Your task to perform on an android device: Open Chrome and go to the settings page Image 0: 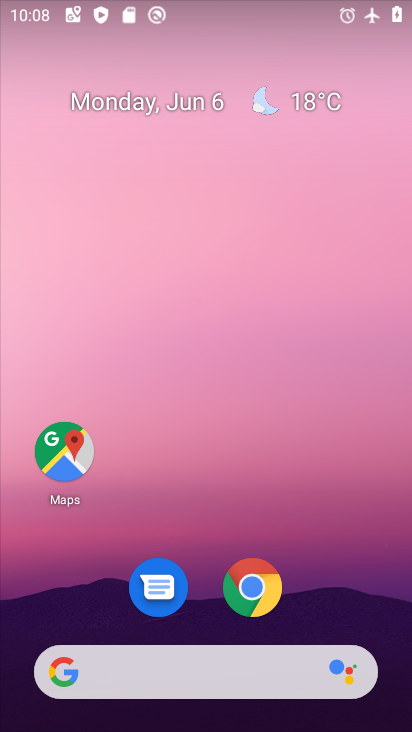
Step 0: click (250, 574)
Your task to perform on an android device: Open Chrome and go to the settings page Image 1: 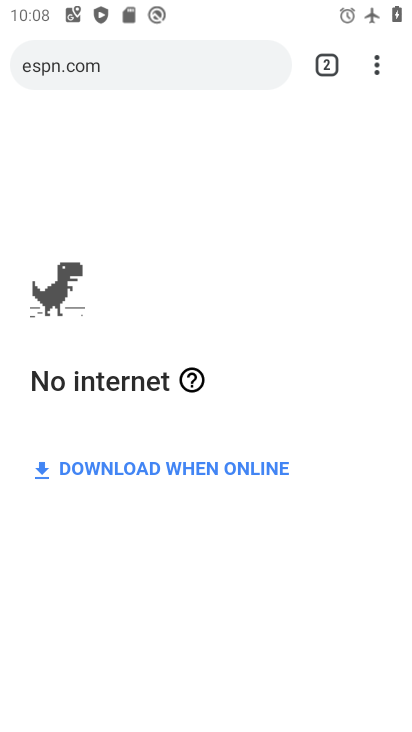
Step 1: click (380, 57)
Your task to perform on an android device: Open Chrome and go to the settings page Image 2: 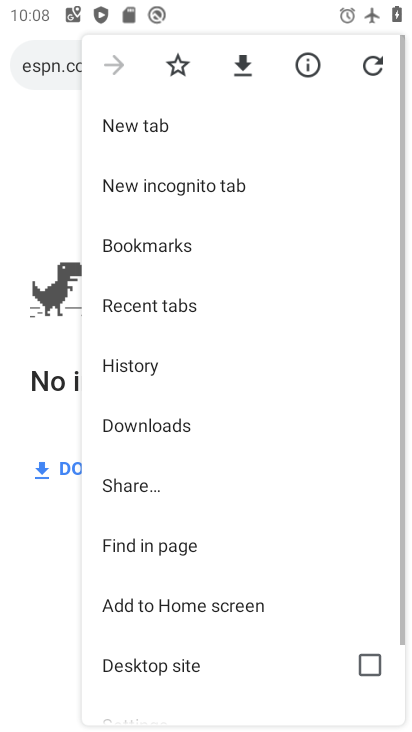
Step 2: drag from (250, 568) to (277, 63)
Your task to perform on an android device: Open Chrome and go to the settings page Image 3: 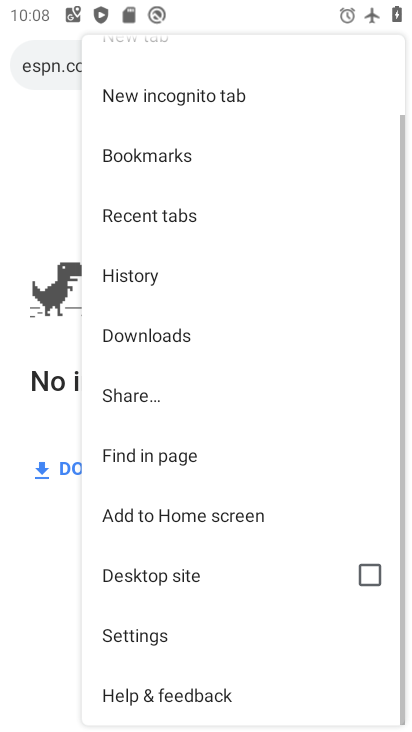
Step 3: click (146, 630)
Your task to perform on an android device: Open Chrome and go to the settings page Image 4: 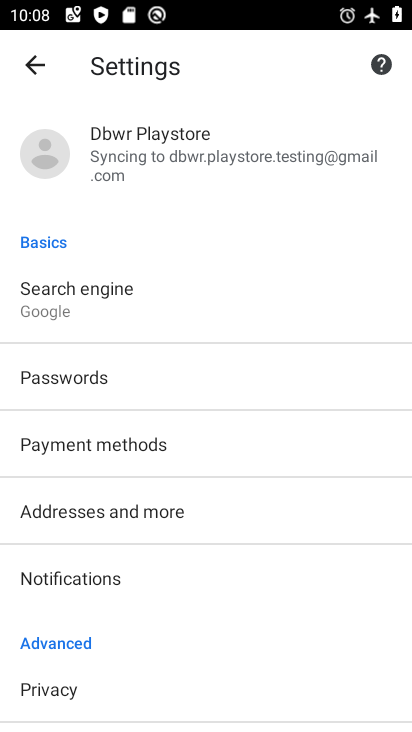
Step 4: task complete